Your task to perform on an android device: Open location settings Image 0: 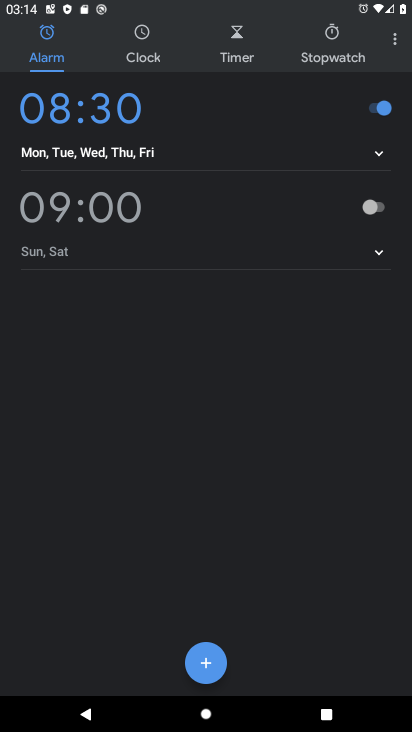
Step 0: press home button
Your task to perform on an android device: Open location settings Image 1: 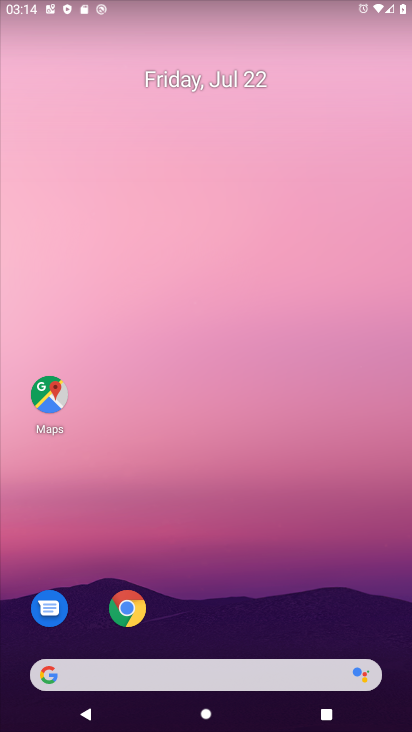
Step 1: drag from (358, 630) to (280, 132)
Your task to perform on an android device: Open location settings Image 2: 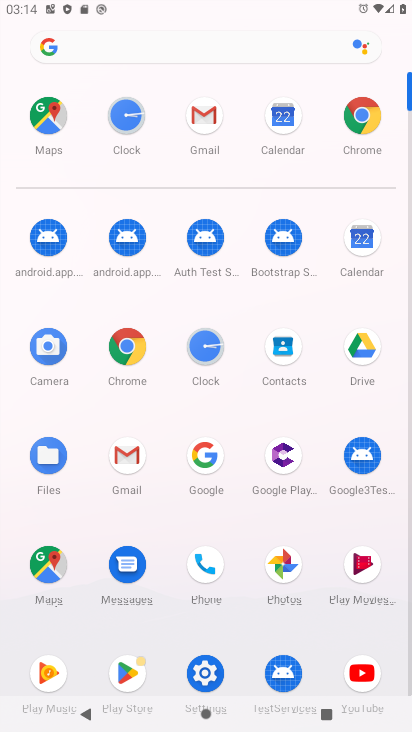
Step 2: click (197, 670)
Your task to perform on an android device: Open location settings Image 3: 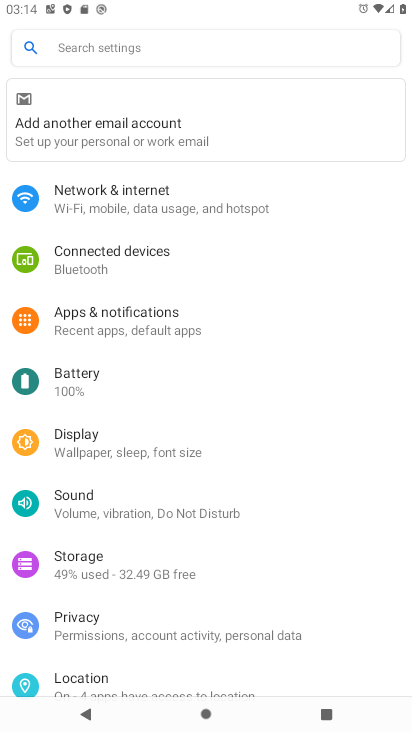
Step 3: click (70, 682)
Your task to perform on an android device: Open location settings Image 4: 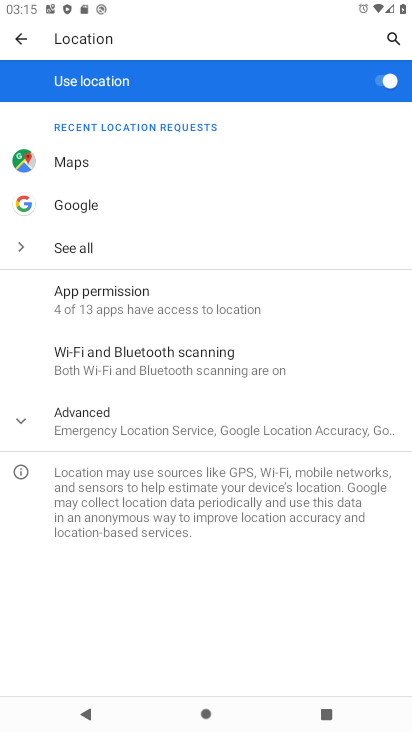
Step 4: task complete